Your task to perform on an android device: Open the calendar and show me this week's events? Image 0: 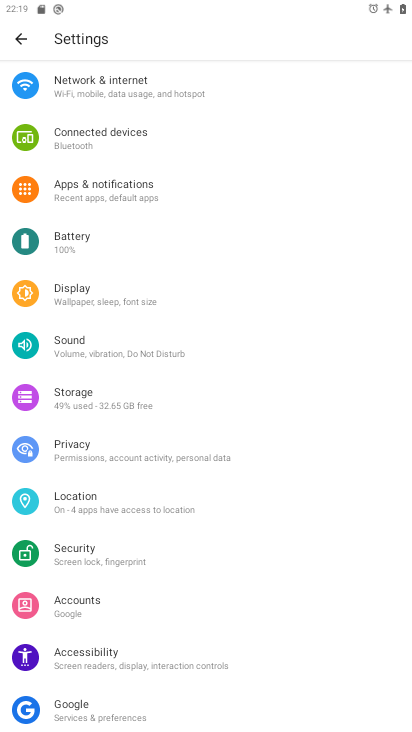
Step 0: press home button
Your task to perform on an android device: Open the calendar and show me this week's events? Image 1: 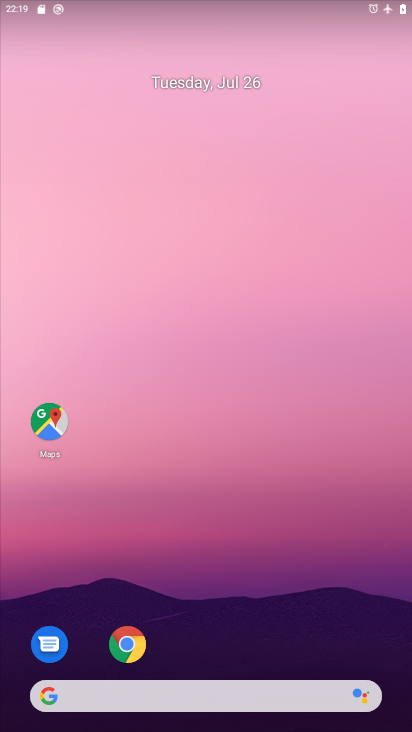
Step 1: drag from (235, 629) to (325, 100)
Your task to perform on an android device: Open the calendar and show me this week's events? Image 2: 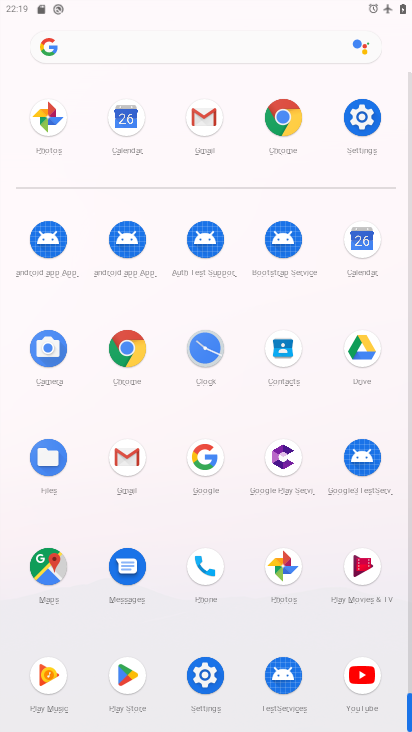
Step 2: click (369, 235)
Your task to perform on an android device: Open the calendar and show me this week's events? Image 3: 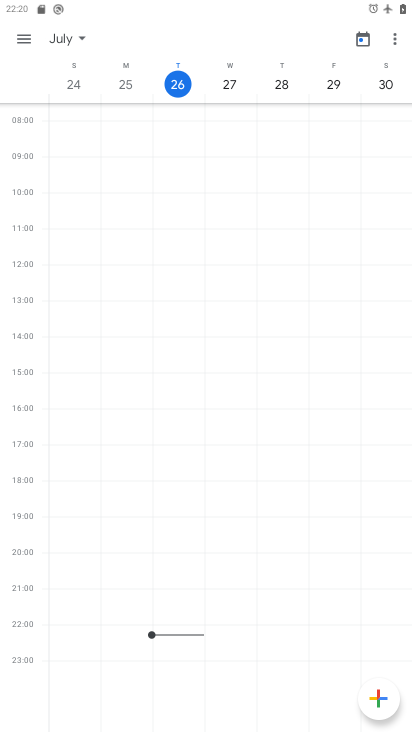
Step 3: task complete